Your task to perform on an android device: toggle notifications settings in the gmail app Image 0: 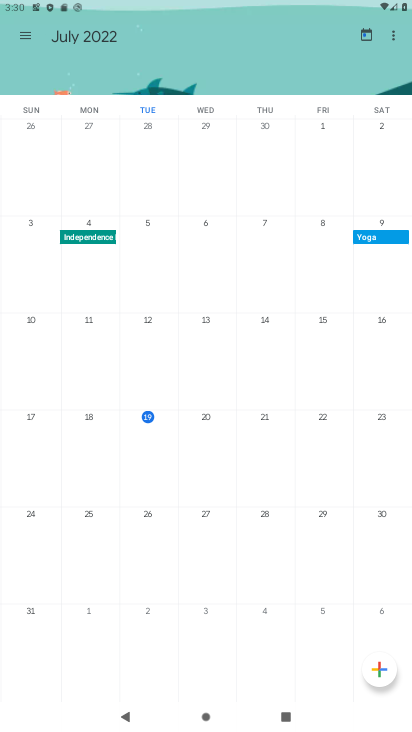
Step 0: click (130, 621)
Your task to perform on an android device: toggle notifications settings in the gmail app Image 1: 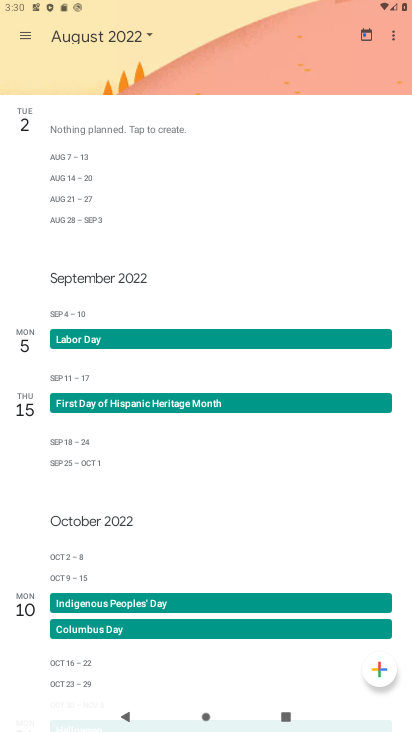
Step 1: press home button
Your task to perform on an android device: toggle notifications settings in the gmail app Image 2: 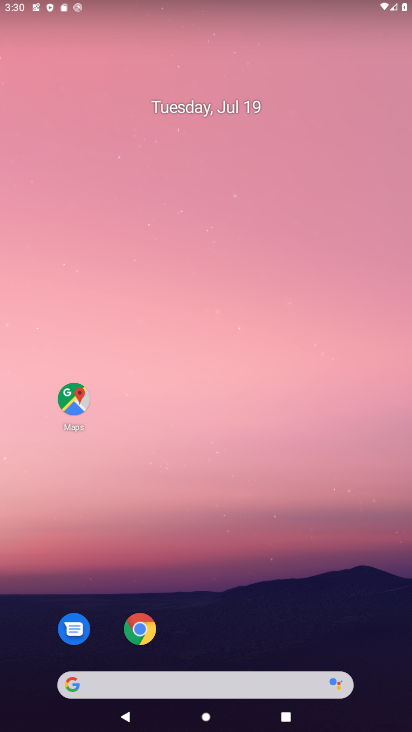
Step 2: drag from (196, 663) to (192, 199)
Your task to perform on an android device: toggle notifications settings in the gmail app Image 3: 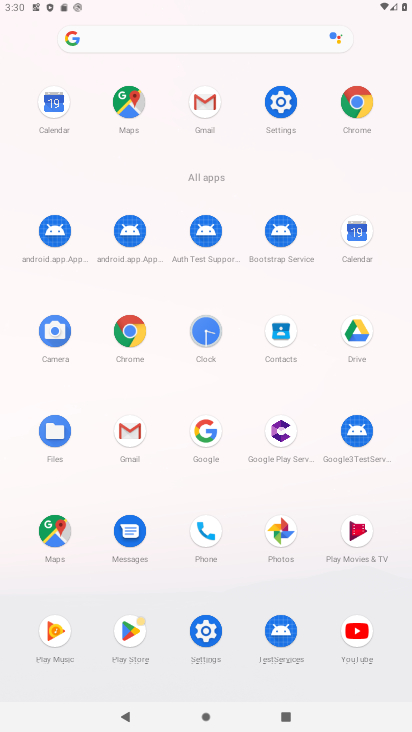
Step 3: click (209, 100)
Your task to perform on an android device: toggle notifications settings in the gmail app Image 4: 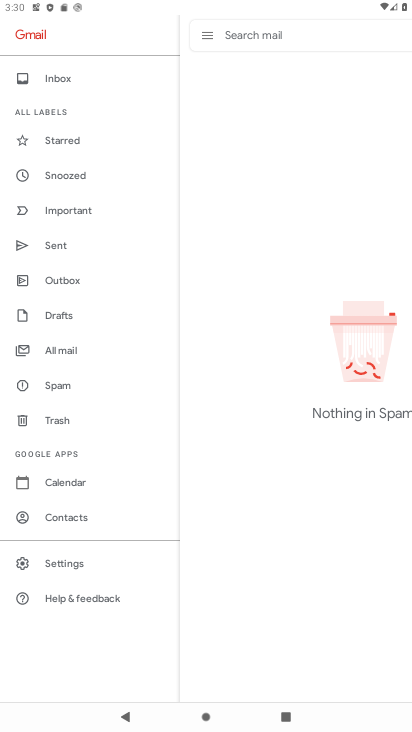
Step 4: click (42, 558)
Your task to perform on an android device: toggle notifications settings in the gmail app Image 5: 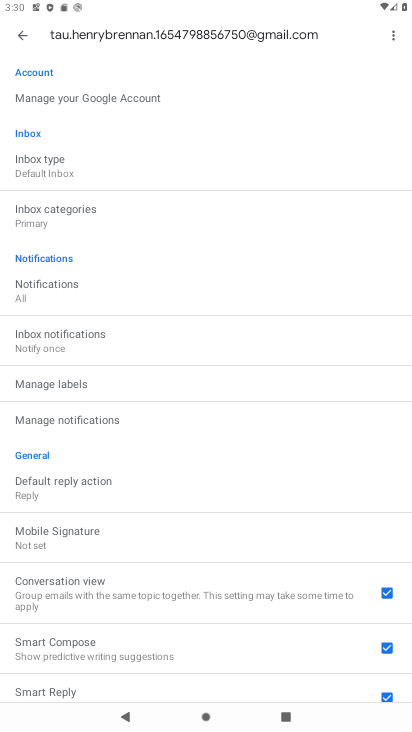
Step 5: click (48, 422)
Your task to perform on an android device: toggle notifications settings in the gmail app Image 6: 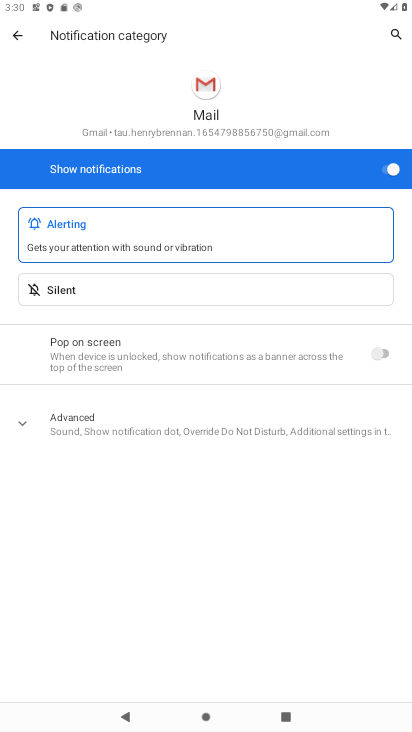
Step 6: click (391, 168)
Your task to perform on an android device: toggle notifications settings in the gmail app Image 7: 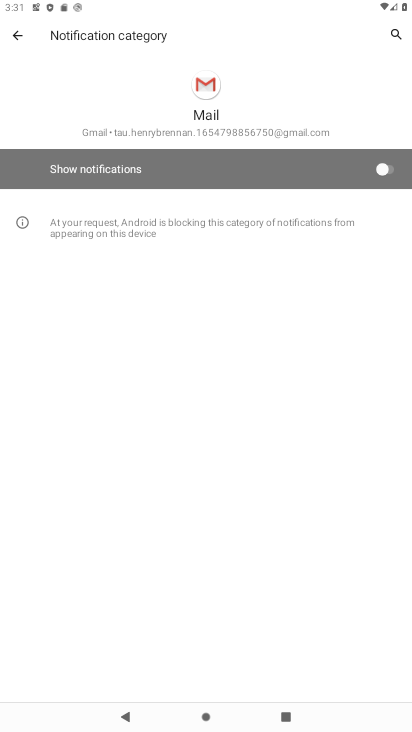
Step 7: task complete